Your task to perform on an android device: check the backup settings in the google photos Image 0: 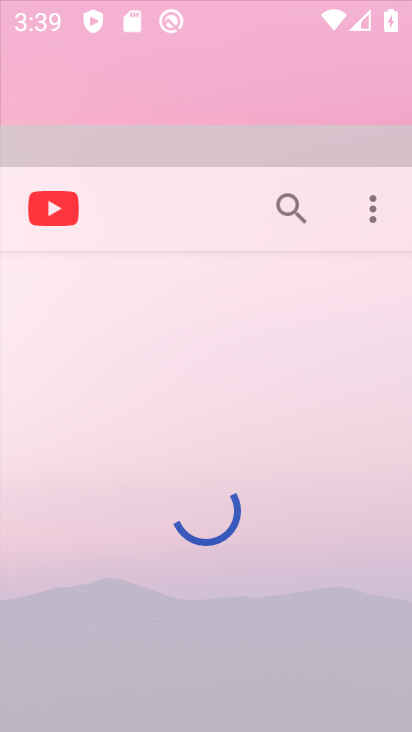
Step 0: press home button
Your task to perform on an android device: check the backup settings in the google photos Image 1: 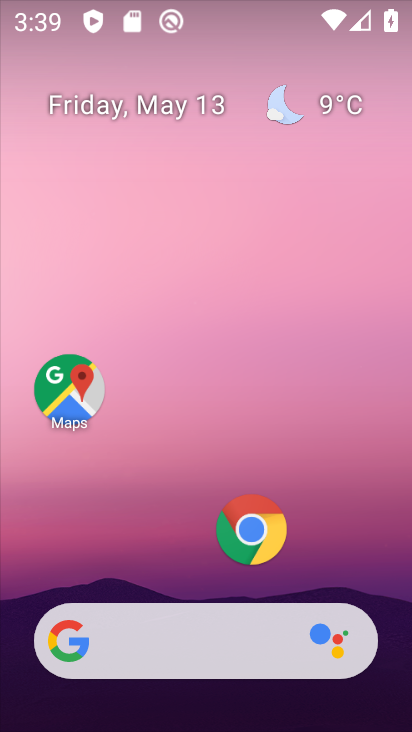
Step 1: drag from (194, 573) to (210, 87)
Your task to perform on an android device: check the backup settings in the google photos Image 2: 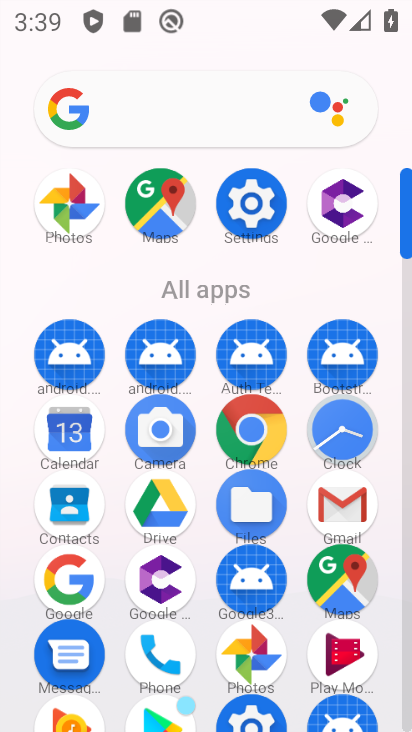
Step 2: click (250, 646)
Your task to perform on an android device: check the backup settings in the google photos Image 3: 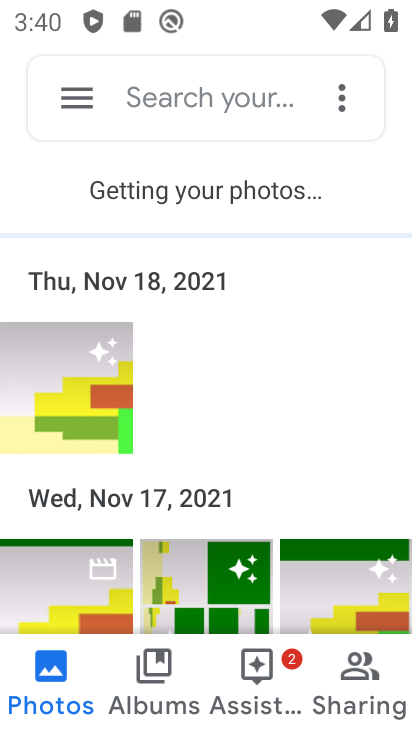
Step 3: click (78, 95)
Your task to perform on an android device: check the backup settings in the google photos Image 4: 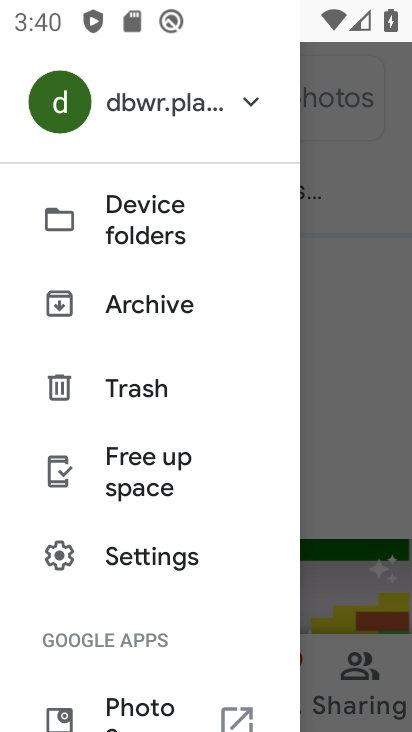
Step 4: click (89, 551)
Your task to perform on an android device: check the backup settings in the google photos Image 5: 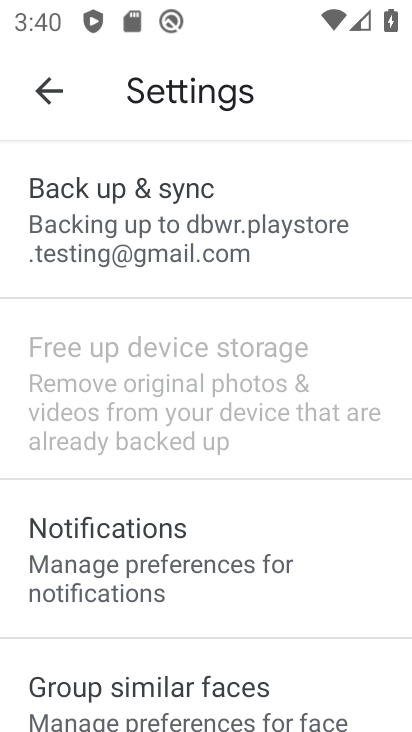
Step 5: click (189, 235)
Your task to perform on an android device: check the backup settings in the google photos Image 6: 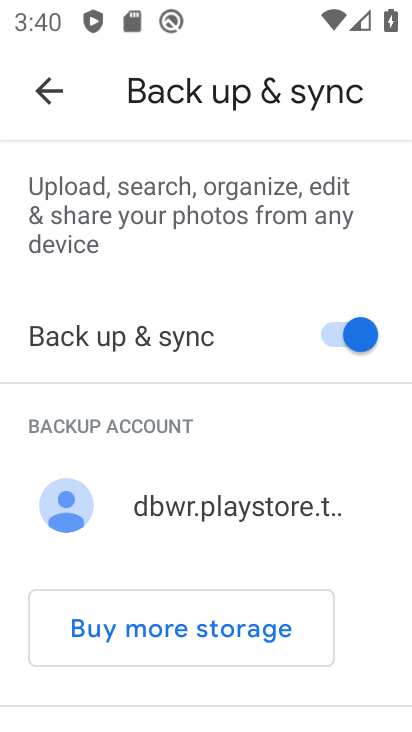
Step 6: task complete